Your task to perform on an android device: open chrome and create a bookmark for the current page Image 0: 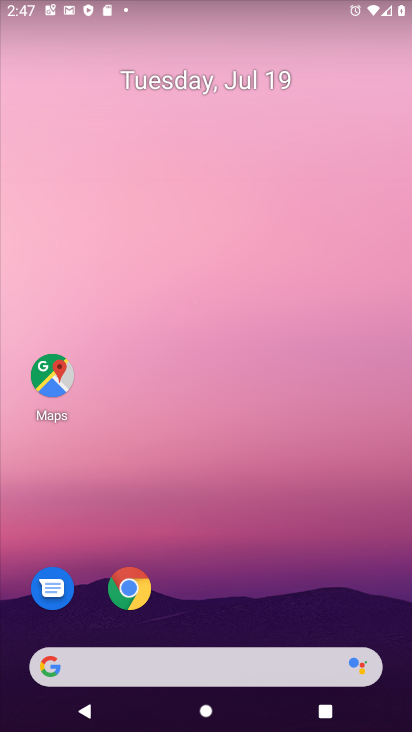
Step 0: drag from (375, 609) to (318, 88)
Your task to perform on an android device: open chrome and create a bookmark for the current page Image 1: 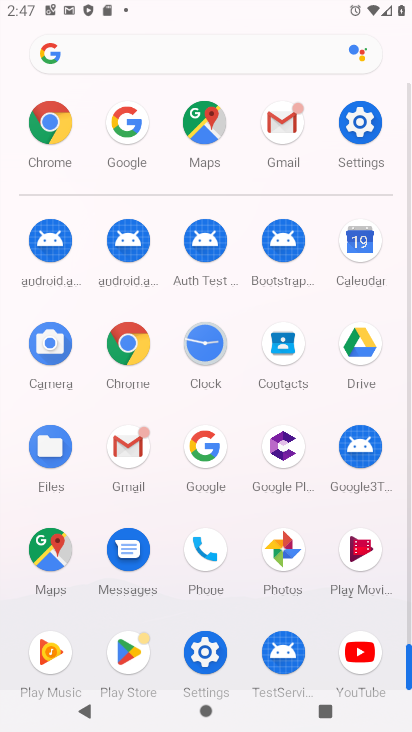
Step 1: click (115, 342)
Your task to perform on an android device: open chrome and create a bookmark for the current page Image 2: 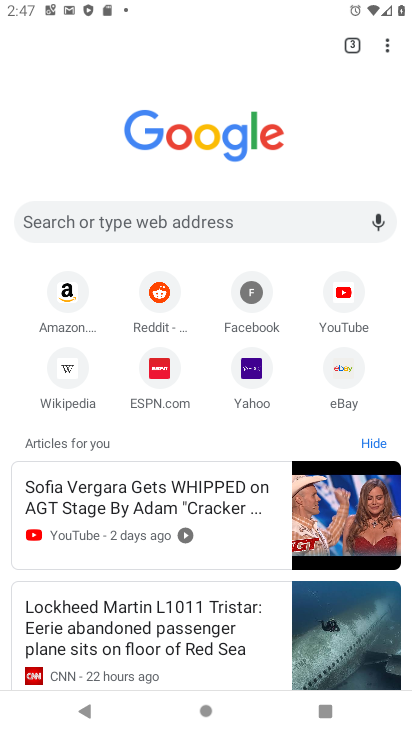
Step 2: click (389, 40)
Your task to perform on an android device: open chrome and create a bookmark for the current page Image 3: 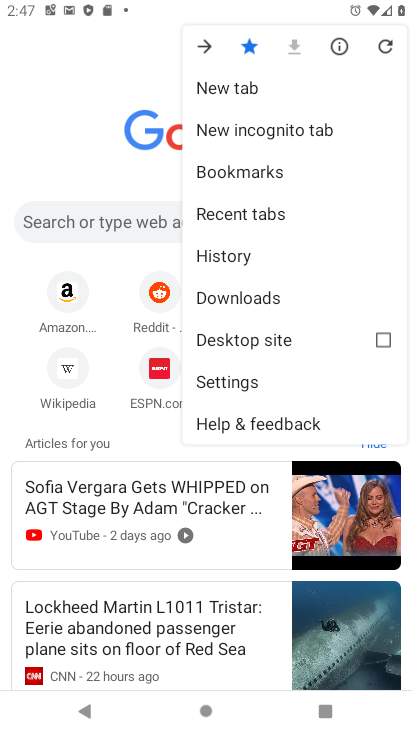
Step 3: task complete